Your task to perform on an android device: turn smart compose on in the gmail app Image 0: 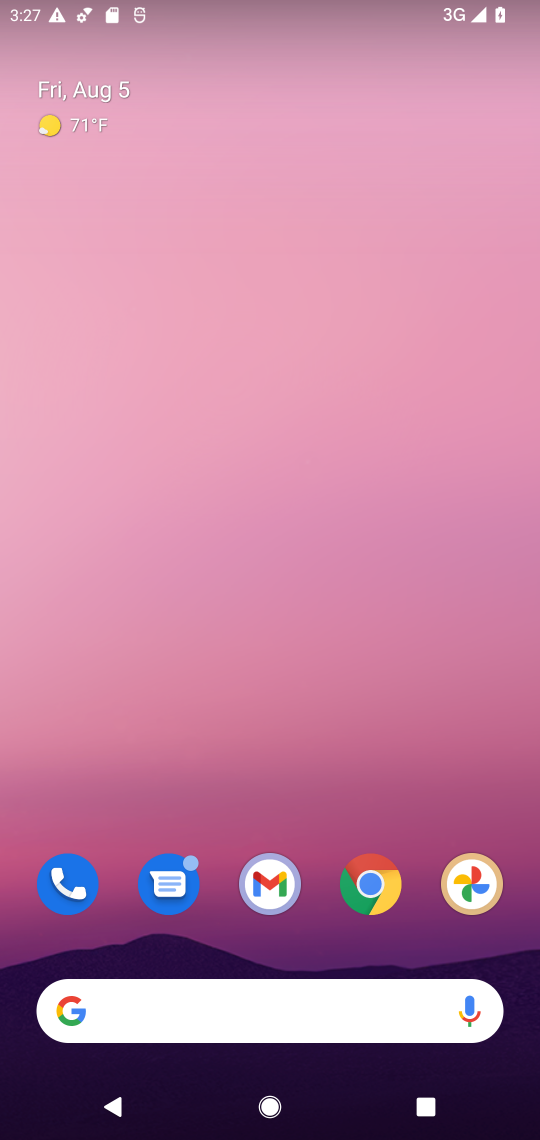
Step 0: drag from (396, 1003) to (255, 0)
Your task to perform on an android device: turn smart compose on in the gmail app Image 1: 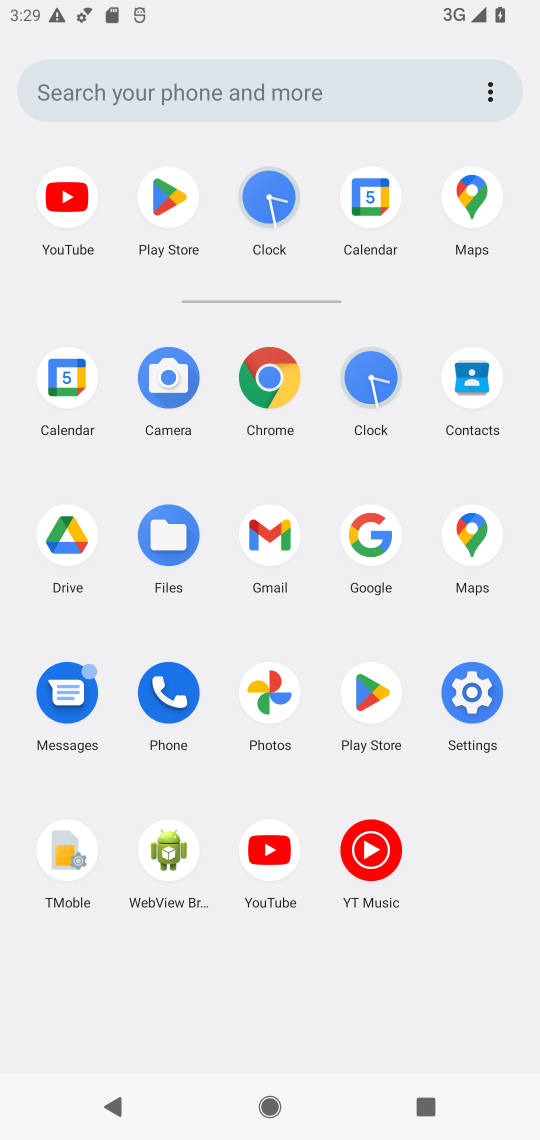
Step 1: click (269, 523)
Your task to perform on an android device: turn smart compose on in the gmail app Image 2: 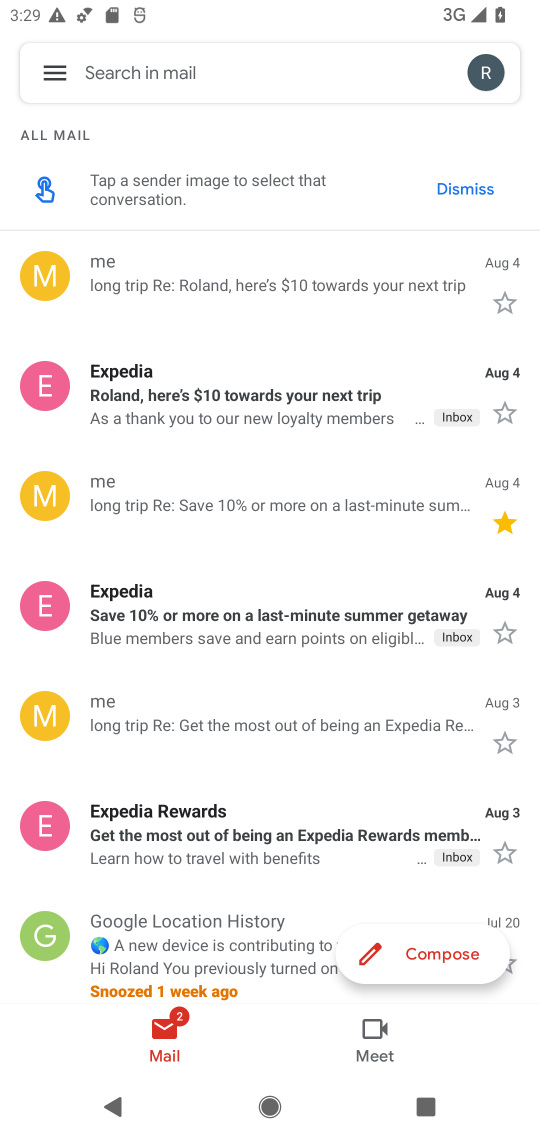
Step 2: click (58, 63)
Your task to perform on an android device: turn smart compose on in the gmail app Image 3: 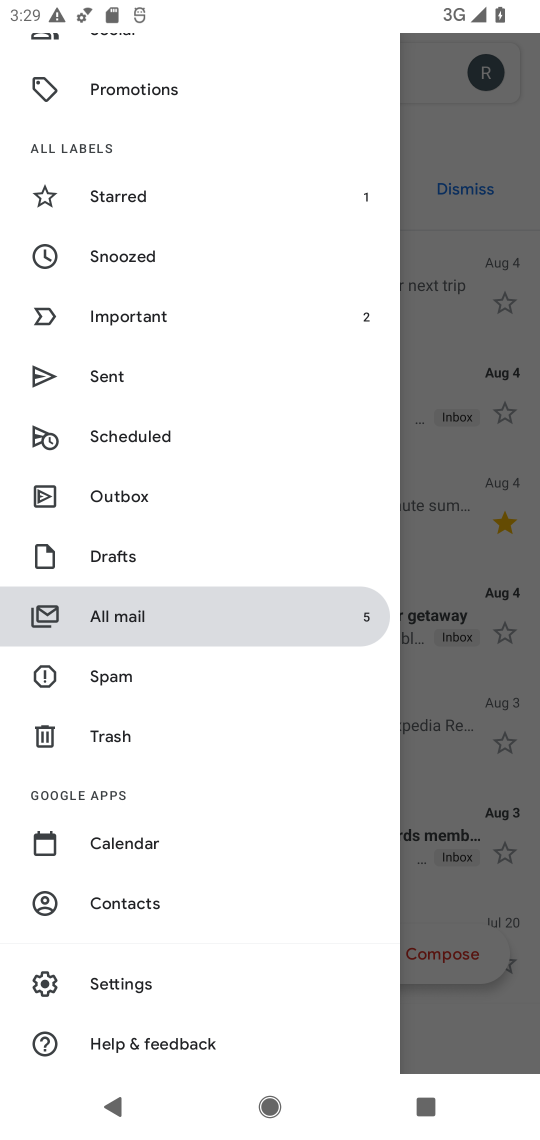
Step 3: click (169, 977)
Your task to perform on an android device: turn smart compose on in the gmail app Image 4: 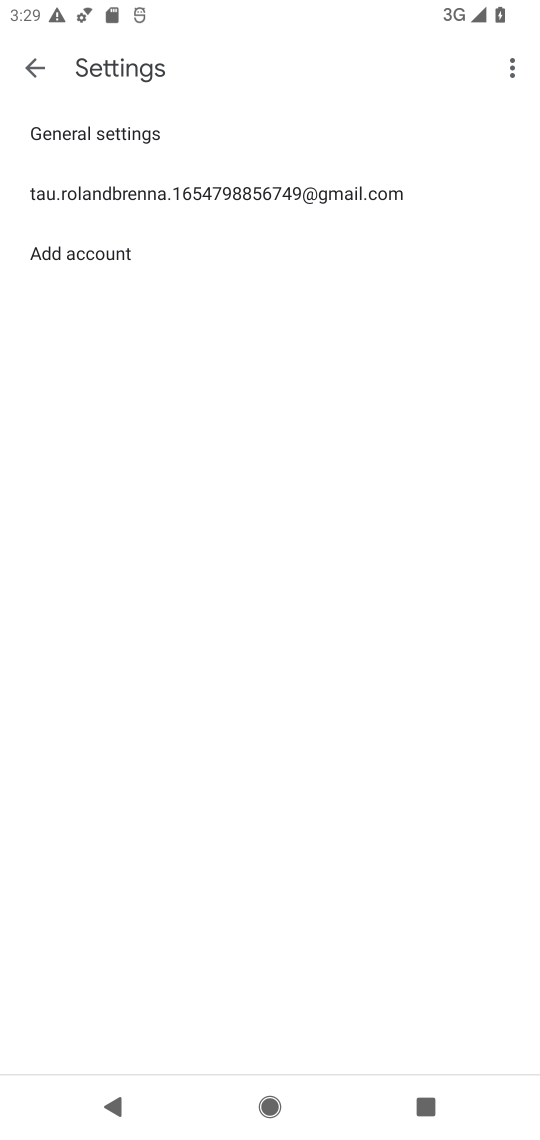
Step 4: click (206, 210)
Your task to perform on an android device: turn smart compose on in the gmail app Image 5: 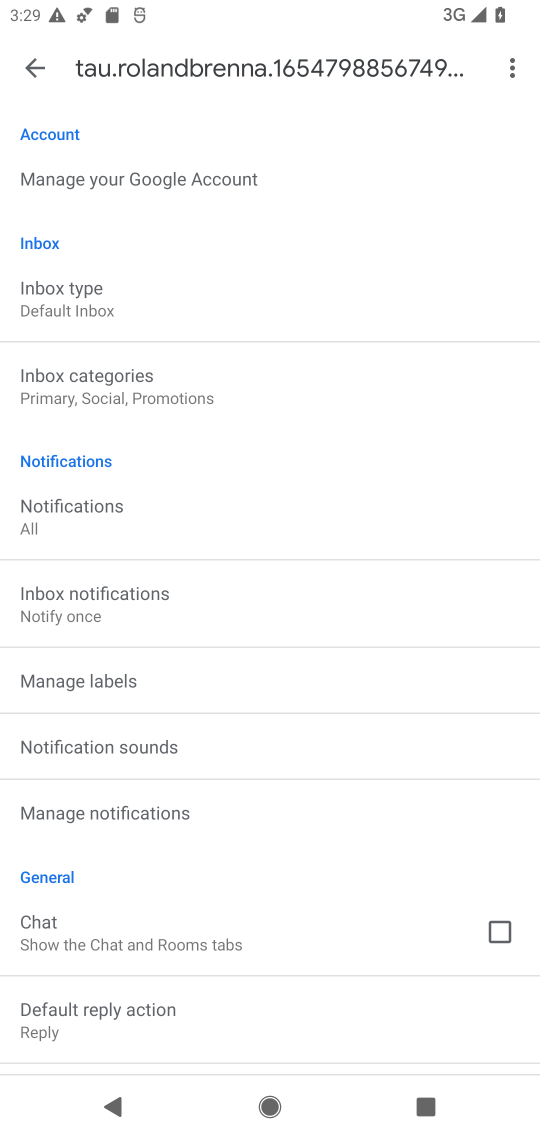
Step 5: task complete